Your task to perform on an android device: check data usage Image 0: 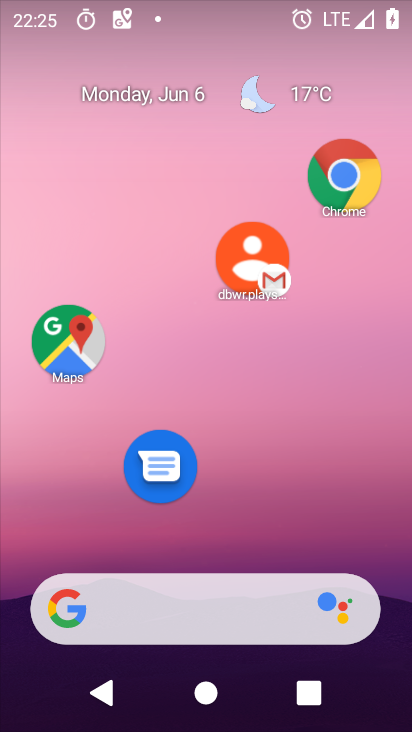
Step 0: drag from (228, 525) to (170, 227)
Your task to perform on an android device: check data usage Image 1: 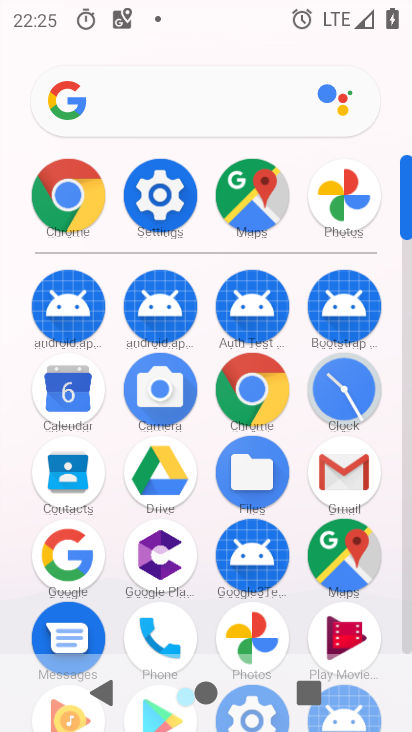
Step 1: click (137, 192)
Your task to perform on an android device: check data usage Image 2: 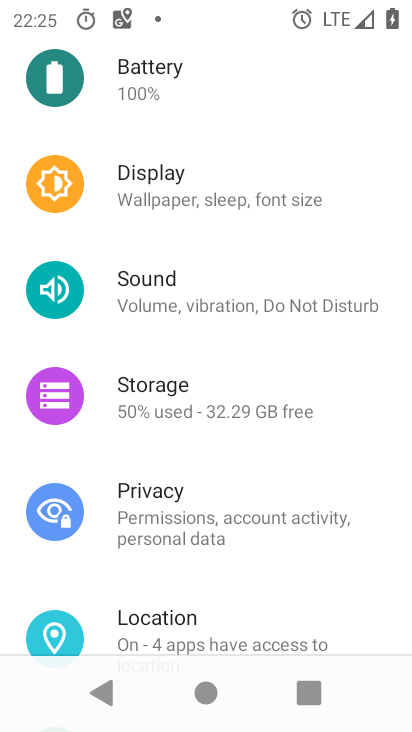
Step 2: drag from (159, 104) to (336, 725)
Your task to perform on an android device: check data usage Image 3: 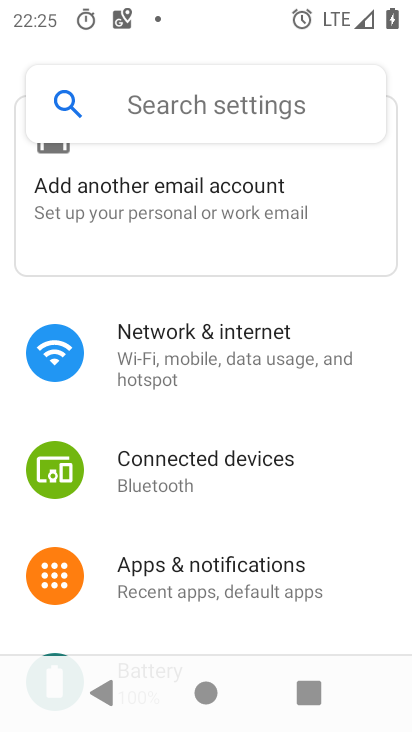
Step 3: click (189, 356)
Your task to perform on an android device: check data usage Image 4: 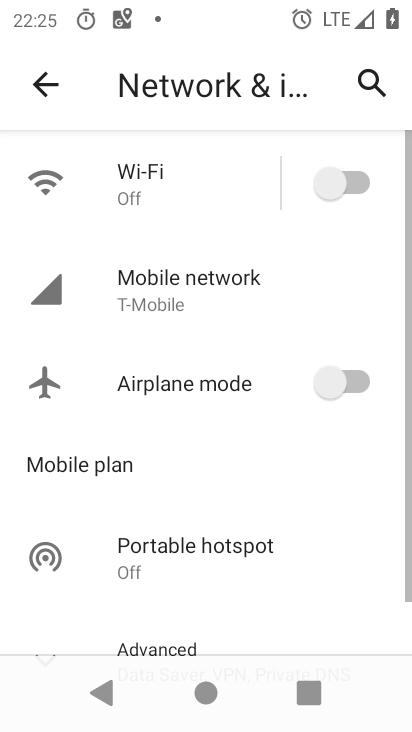
Step 4: click (178, 310)
Your task to perform on an android device: check data usage Image 5: 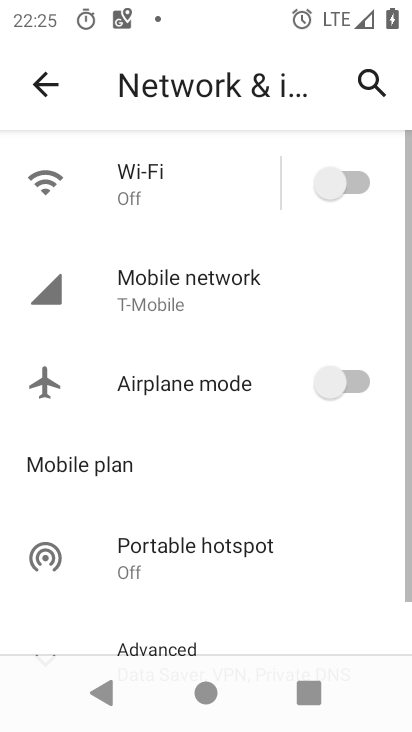
Step 5: click (178, 310)
Your task to perform on an android device: check data usage Image 6: 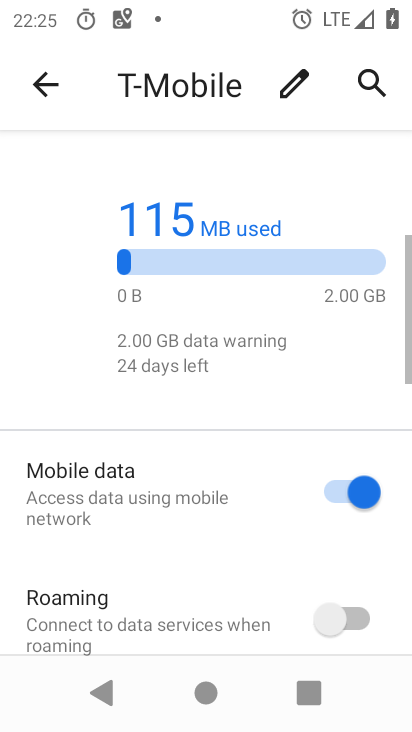
Step 6: task complete